Your task to perform on an android device: Open settings Image 0: 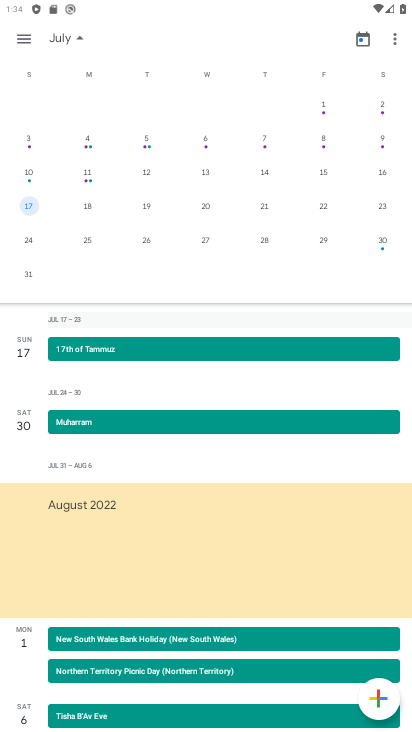
Step 0: press home button
Your task to perform on an android device: Open settings Image 1: 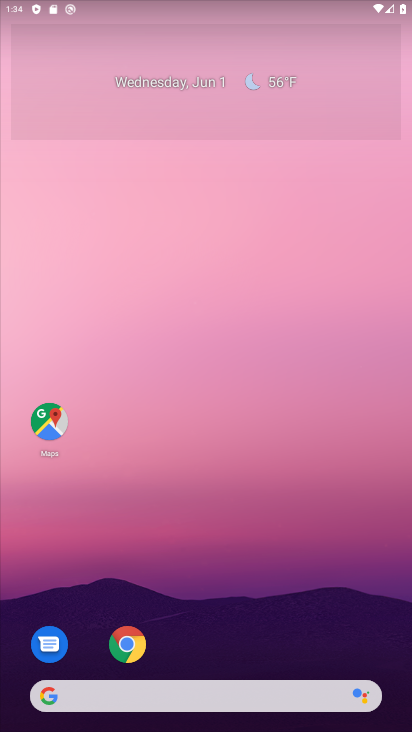
Step 1: drag from (207, 677) to (201, 352)
Your task to perform on an android device: Open settings Image 2: 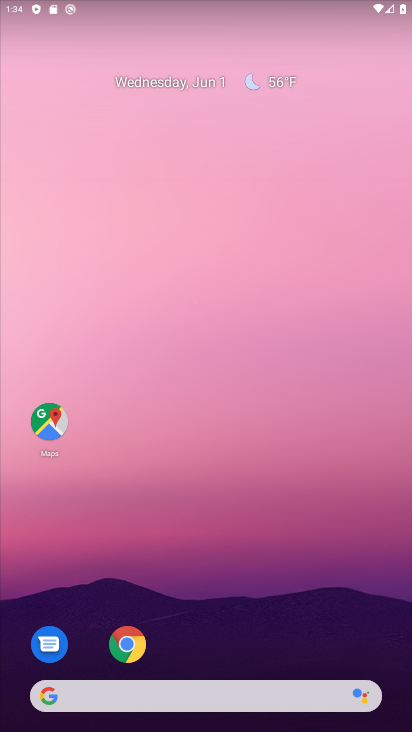
Step 2: drag from (223, 685) to (208, 237)
Your task to perform on an android device: Open settings Image 3: 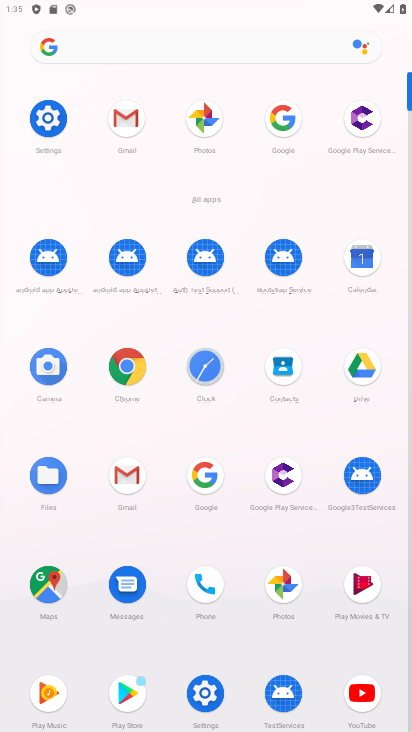
Step 3: click (41, 115)
Your task to perform on an android device: Open settings Image 4: 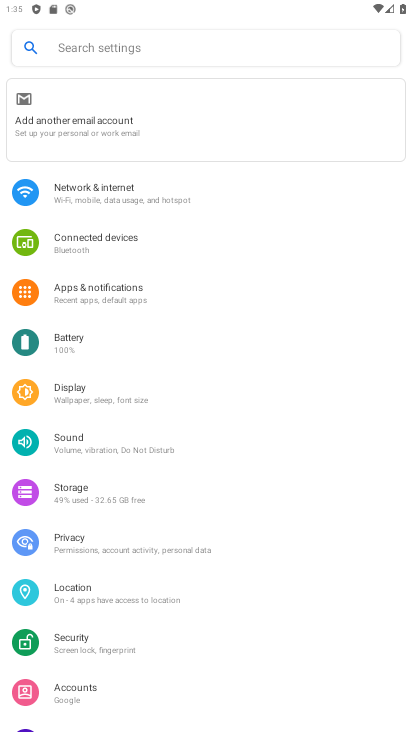
Step 4: task complete